Your task to perform on an android device: Open ESPN.com Image 0: 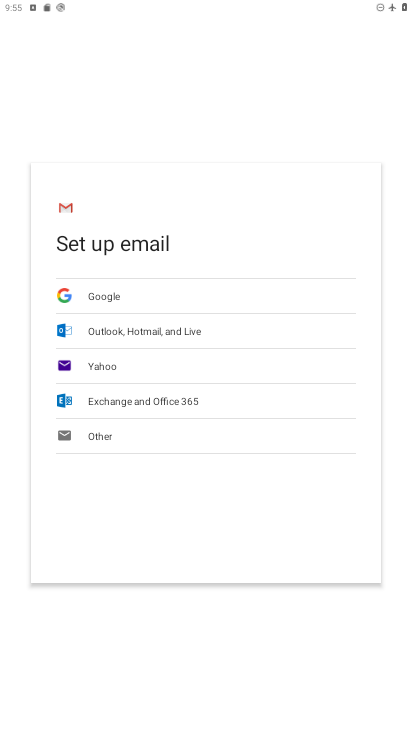
Step 0: press home button
Your task to perform on an android device: Open ESPN.com Image 1: 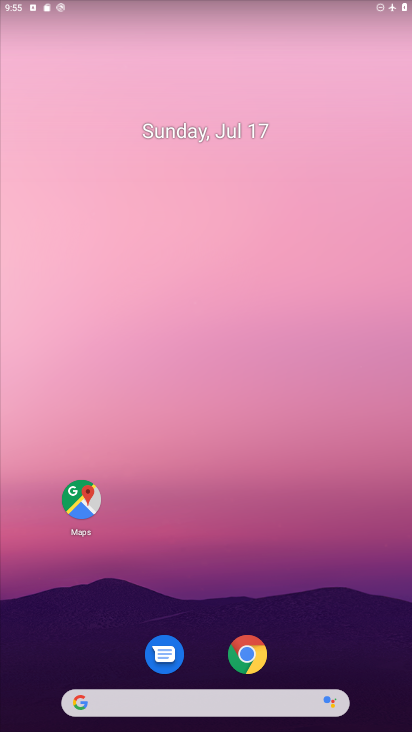
Step 1: click (247, 651)
Your task to perform on an android device: Open ESPN.com Image 2: 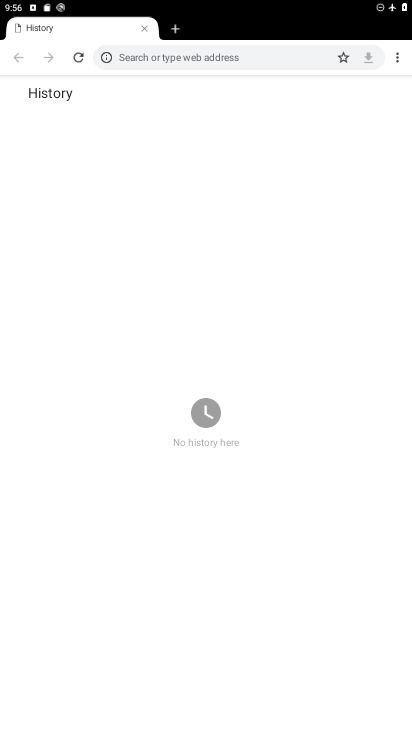
Step 2: click (178, 28)
Your task to perform on an android device: Open ESPN.com Image 3: 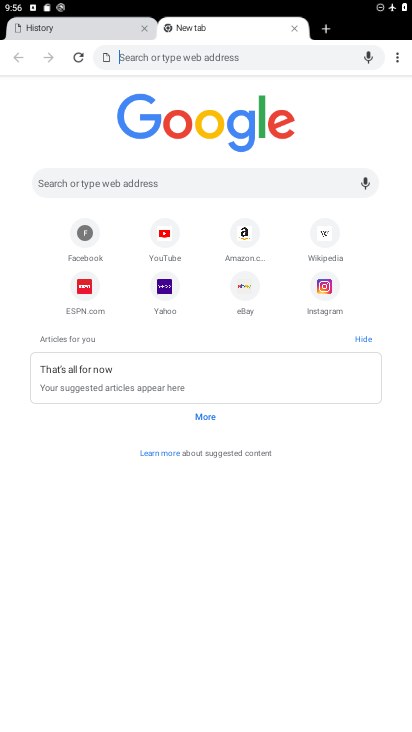
Step 3: click (89, 295)
Your task to perform on an android device: Open ESPN.com Image 4: 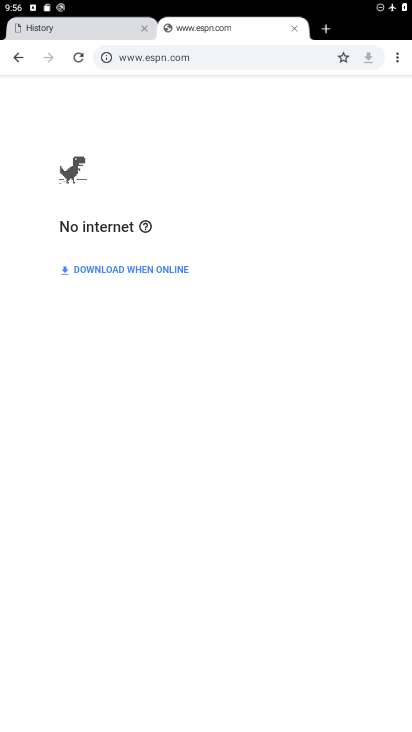
Step 4: task complete